Your task to perform on an android device: Go to Google Image 0: 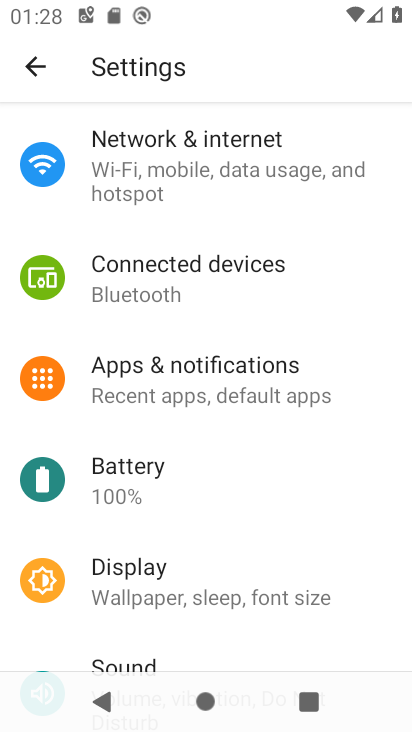
Step 0: press home button
Your task to perform on an android device: Go to Google Image 1: 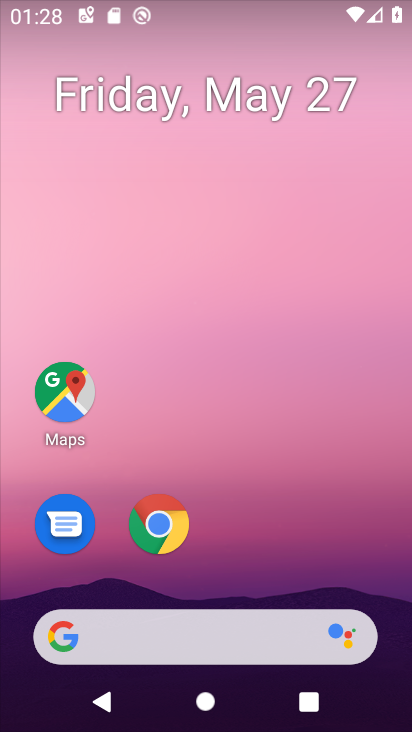
Step 1: click (225, 639)
Your task to perform on an android device: Go to Google Image 2: 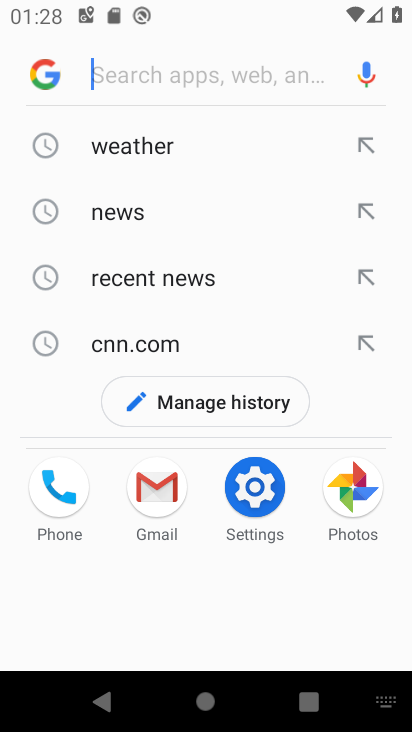
Step 2: click (35, 57)
Your task to perform on an android device: Go to Google Image 3: 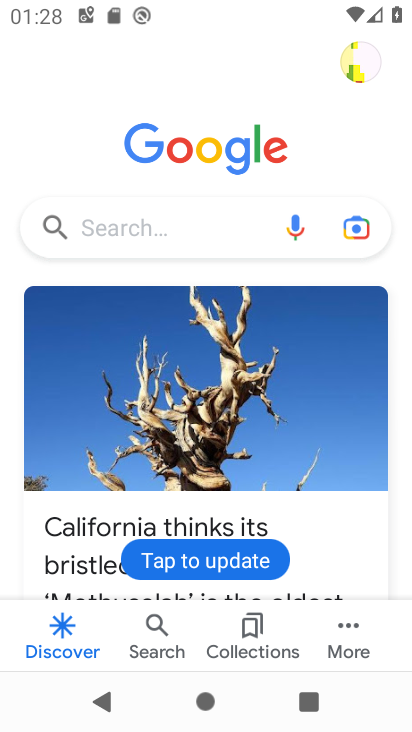
Step 3: task complete